Your task to perform on an android device: Show me popular games on the Play Store Image 0: 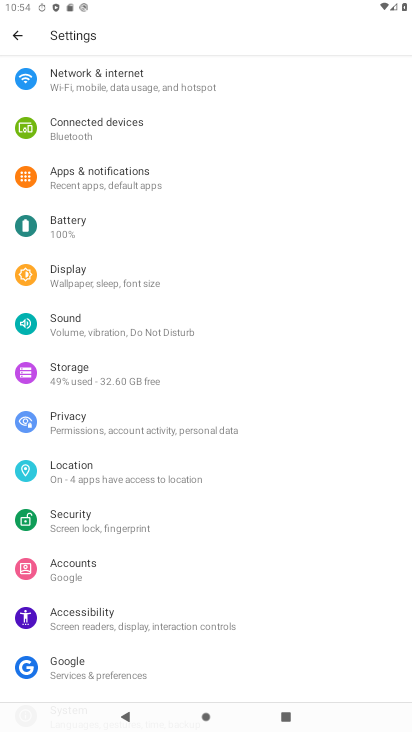
Step 0: press home button
Your task to perform on an android device: Show me popular games on the Play Store Image 1: 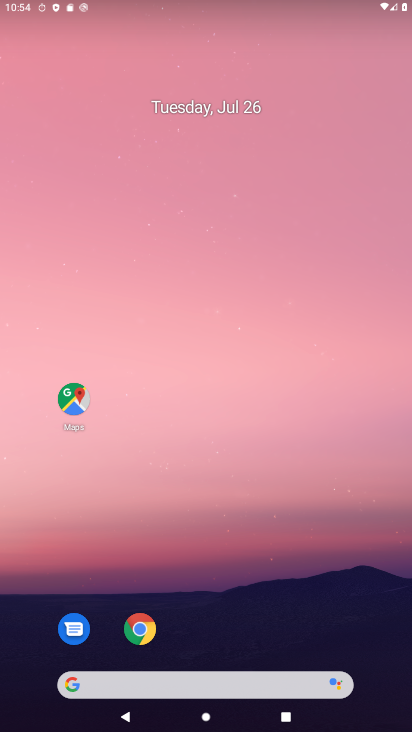
Step 1: drag from (367, 665) to (185, 62)
Your task to perform on an android device: Show me popular games on the Play Store Image 2: 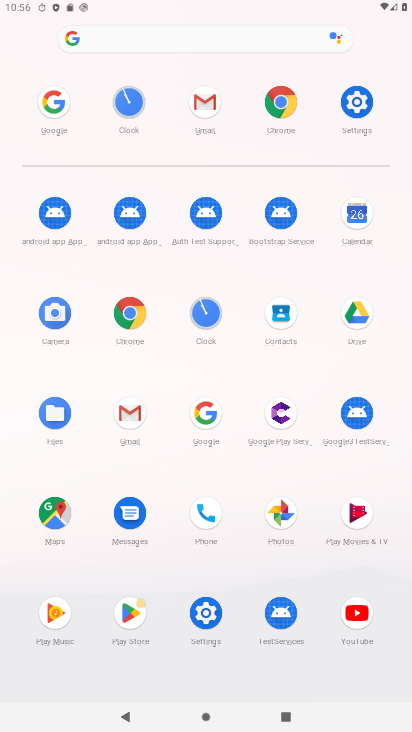
Step 2: click (142, 600)
Your task to perform on an android device: Show me popular games on the Play Store Image 3: 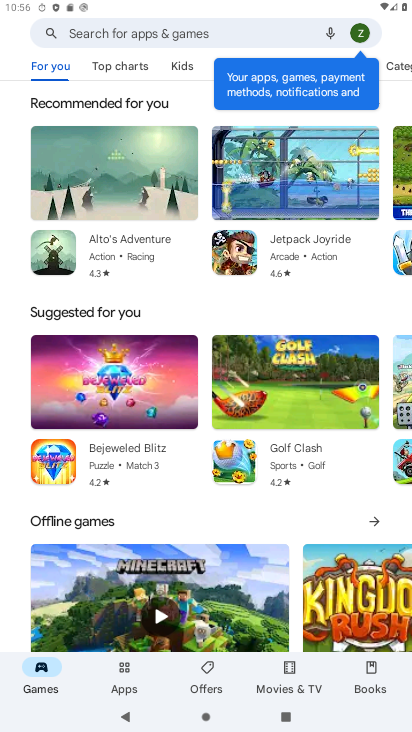
Step 3: click (128, 29)
Your task to perform on an android device: Show me popular games on the Play Store Image 4: 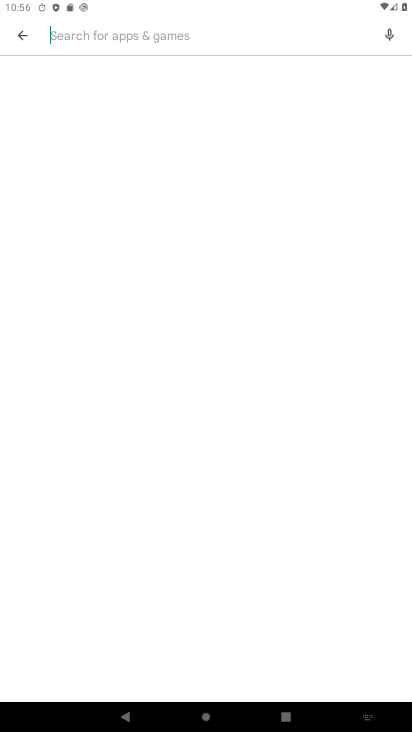
Step 4: type "popular games"
Your task to perform on an android device: Show me popular games on the Play Store Image 5: 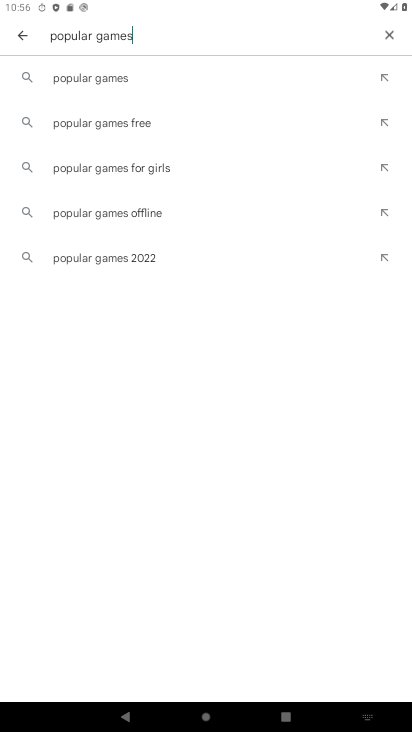
Step 5: click (84, 72)
Your task to perform on an android device: Show me popular games on the Play Store Image 6: 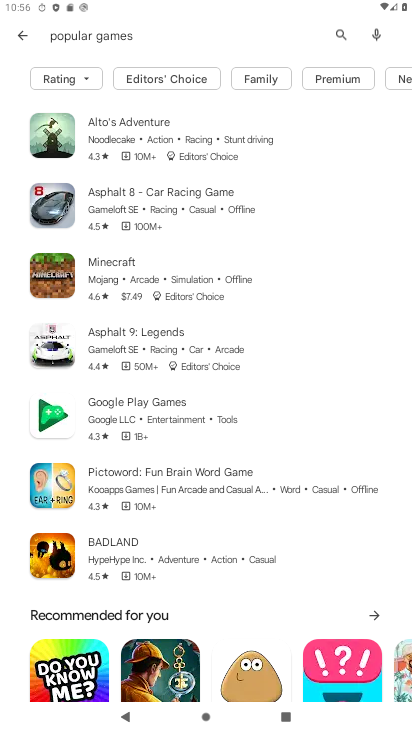
Step 6: task complete